Your task to perform on an android device: Open Chrome and go to settings Image 0: 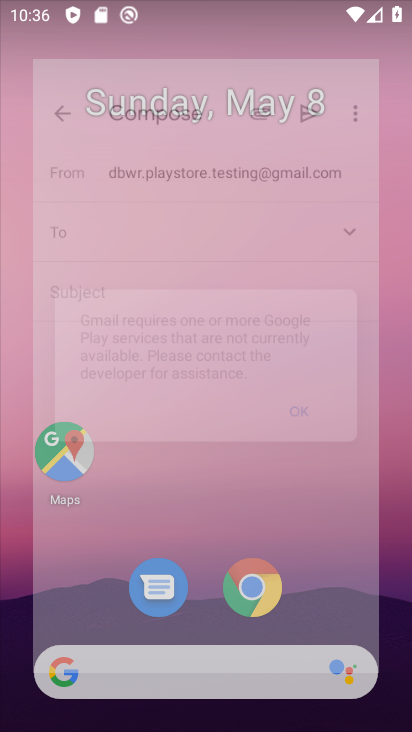
Step 0: drag from (364, 639) to (258, 49)
Your task to perform on an android device: Open Chrome and go to settings Image 1: 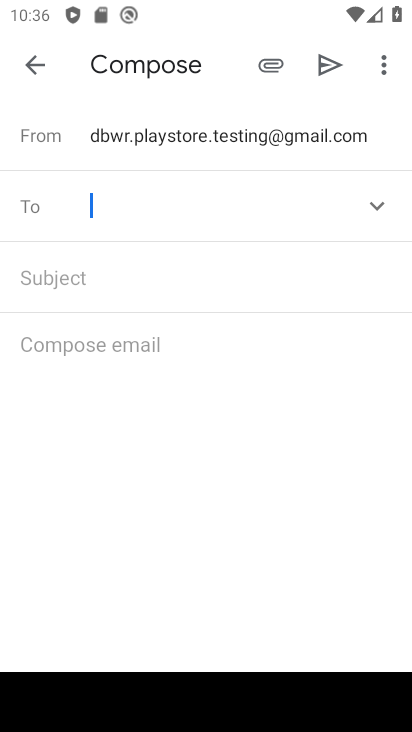
Step 1: click (25, 69)
Your task to perform on an android device: Open Chrome and go to settings Image 2: 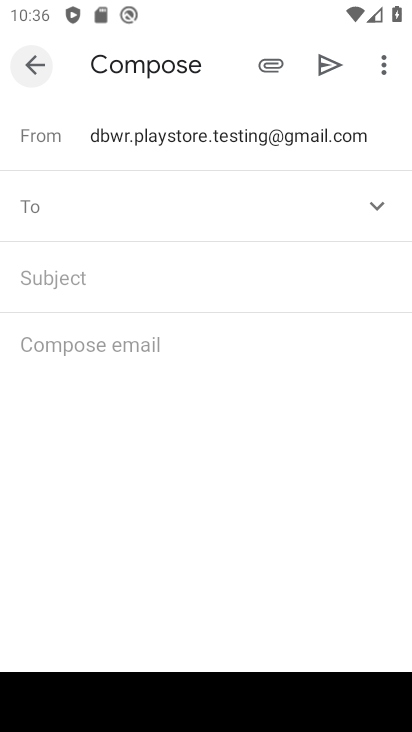
Step 2: click (25, 69)
Your task to perform on an android device: Open Chrome and go to settings Image 3: 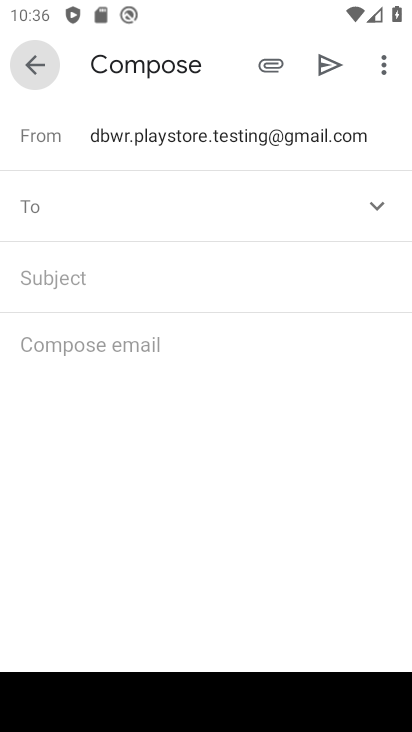
Step 3: click (26, 70)
Your task to perform on an android device: Open Chrome and go to settings Image 4: 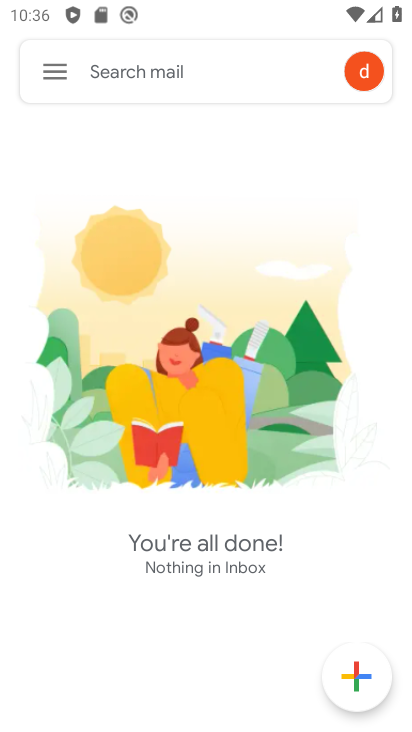
Step 4: press home button
Your task to perform on an android device: Open Chrome and go to settings Image 5: 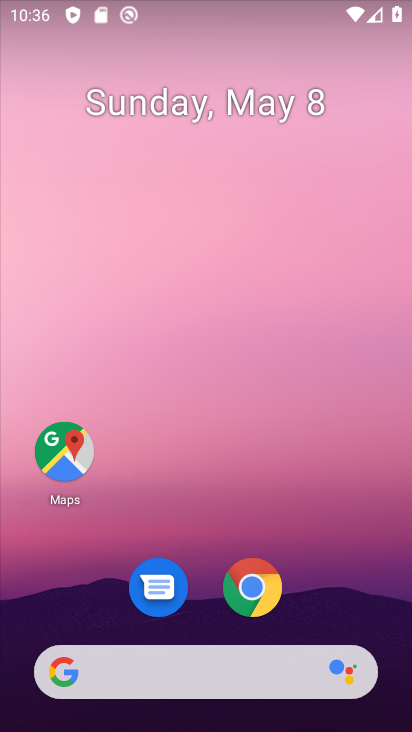
Step 5: drag from (346, 603) to (179, 41)
Your task to perform on an android device: Open Chrome and go to settings Image 6: 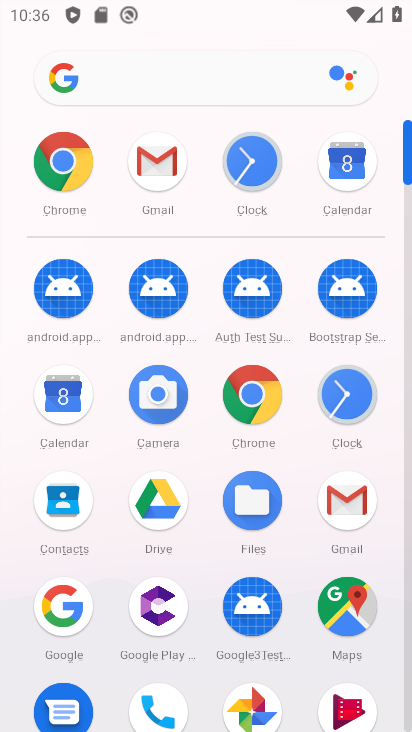
Step 6: click (56, 164)
Your task to perform on an android device: Open Chrome and go to settings Image 7: 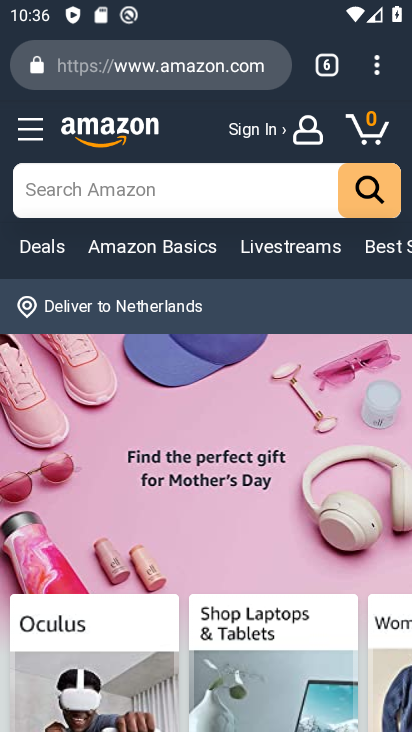
Step 7: drag from (374, 53) to (145, 640)
Your task to perform on an android device: Open Chrome and go to settings Image 8: 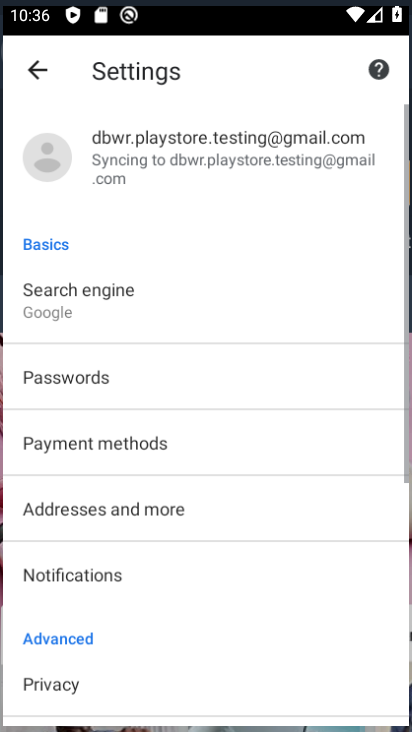
Step 8: click (155, 660)
Your task to perform on an android device: Open Chrome and go to settings Image 9: 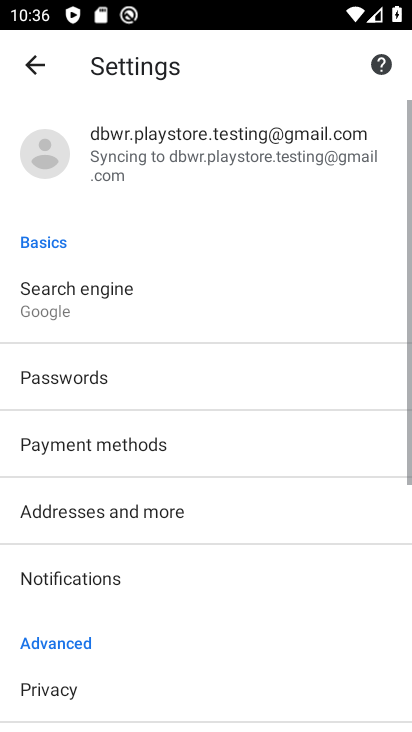
Step 9: click (155, 660)
Your task to perform on an android device: Open Chrome and go to settings Image 10: 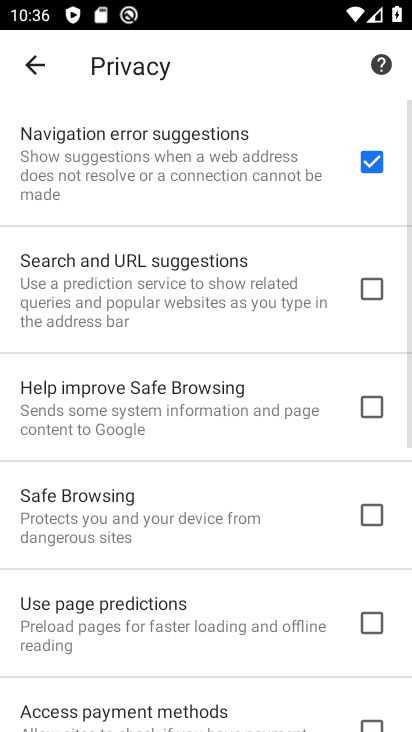
Step 10: task complete